Your task to perform on an android device: Open settings on Google Maps Image 0: 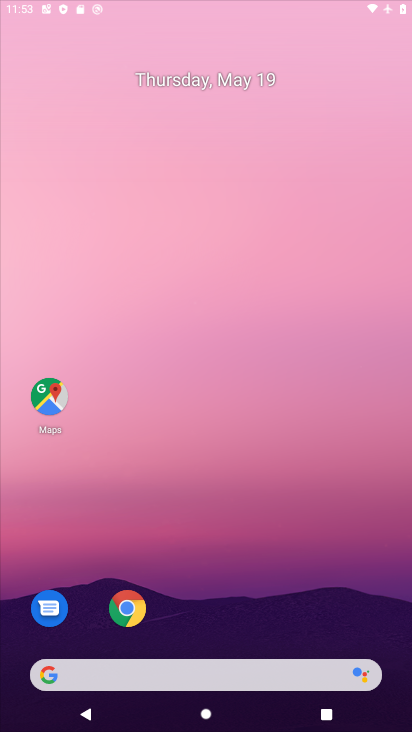
Step 0: click (380, 157)
Your task to perform on an android device: Open settings on Google Maps Image 1: 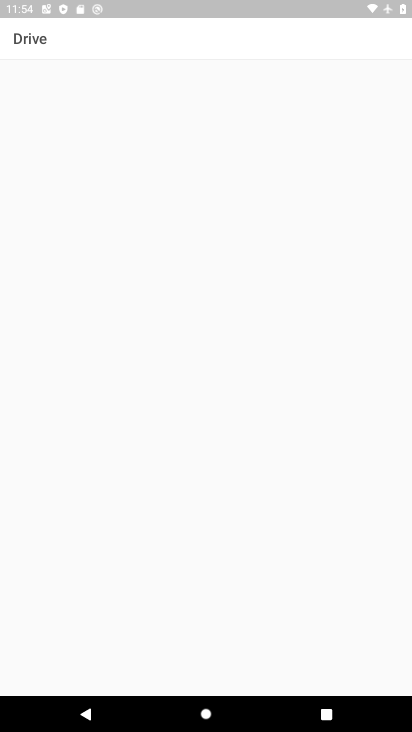
Step 1: drag from (319, 599) to (329, 168)
Your task to perform on an android device: Open settings on Google Maps Image 2: 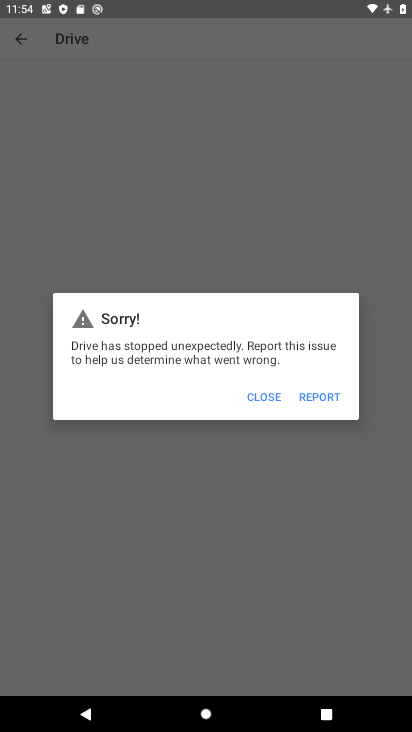
Step 2: press home button
Your task to perform on an android device: Open settings on Google Maps Image 3: 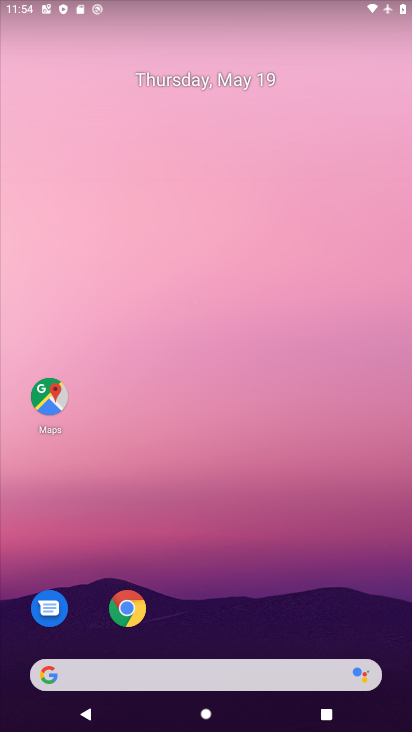
Step 3: drag from (343, 469) to (351, 202)
Your task to perform on an android device: Open settings on Google Maps Image 4: 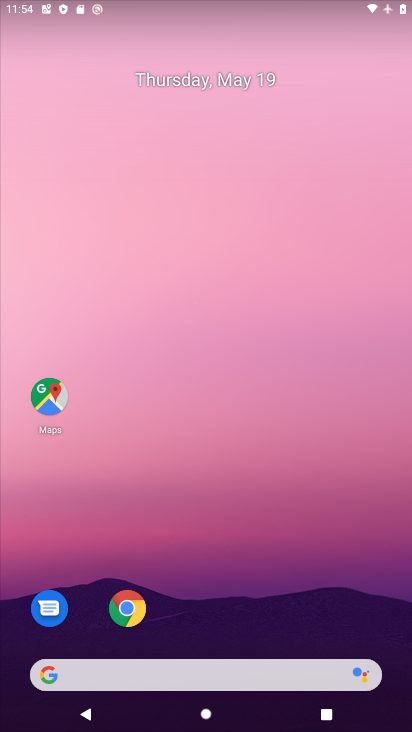
Step 4: drag from (337, 623) to (365, 207)
Your task to perform on an android device: Open settings on Google Maps Image 5: 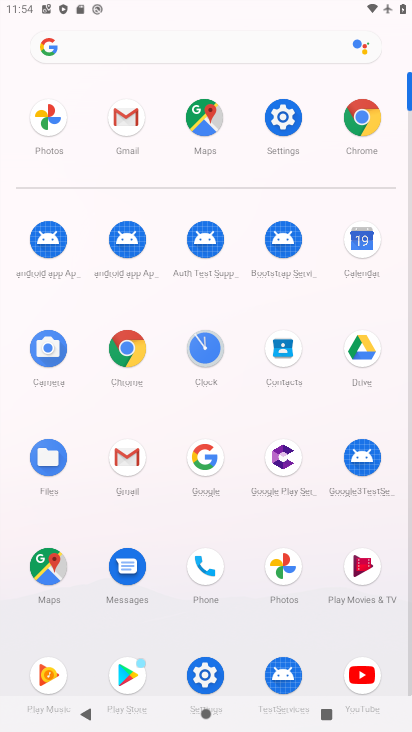
Step 5: click (30, 578)
Your task to perform on an android device: Open settings on Google Maps Image 6: 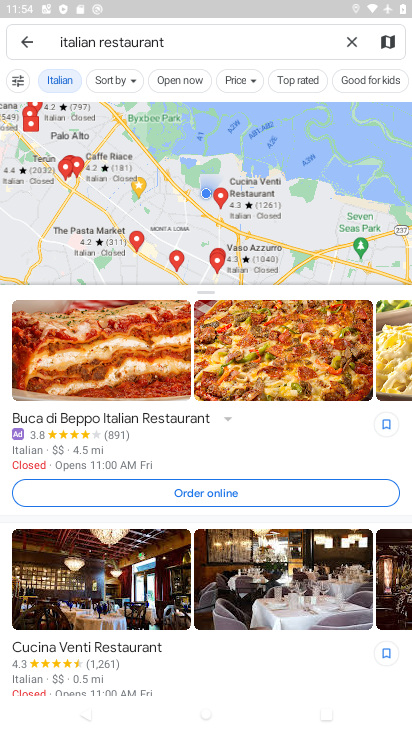
Step 6: click (29, 42)
Your task to perform on an android device: Open settings on Google Maps Image 7: 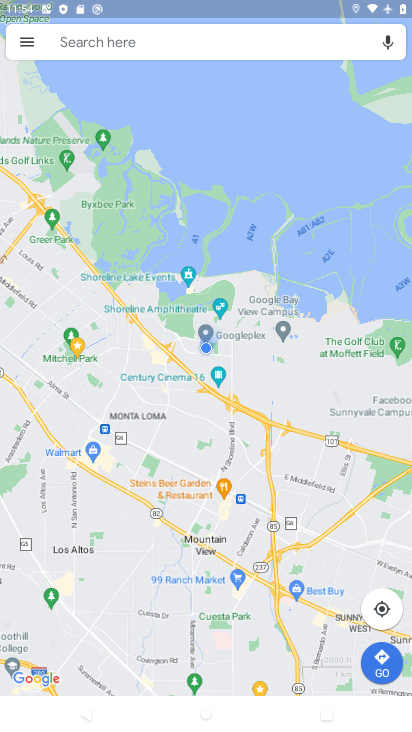
Step 7: click (30, 38)
Your task to perform on an android device: Open settings on Google Maps Image 8: 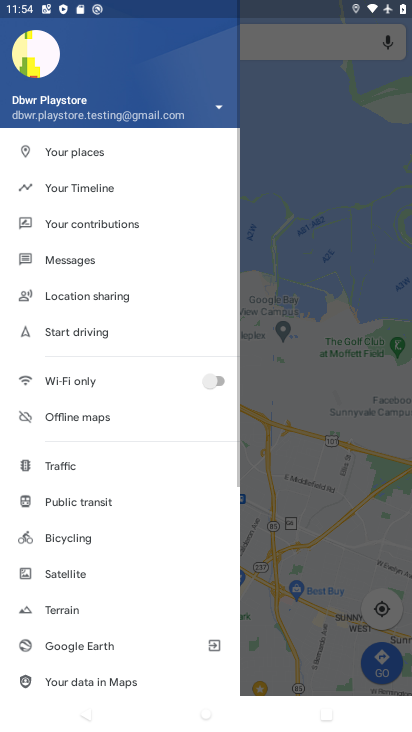
Step 8: drag from (175, 405) to (166, 337)
Your task to perform on an android device: Open settings on Google Maps Image 9: 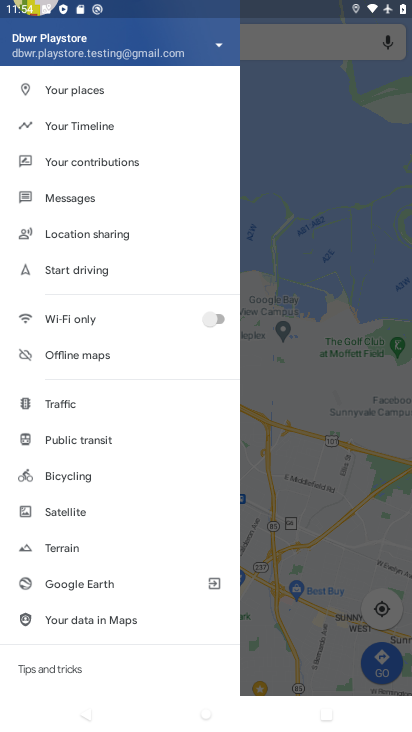
Step 9: drag from (148, 409) to (168, 297)
Your task to perform on an android device: Open settings on Google Maps Image 10: 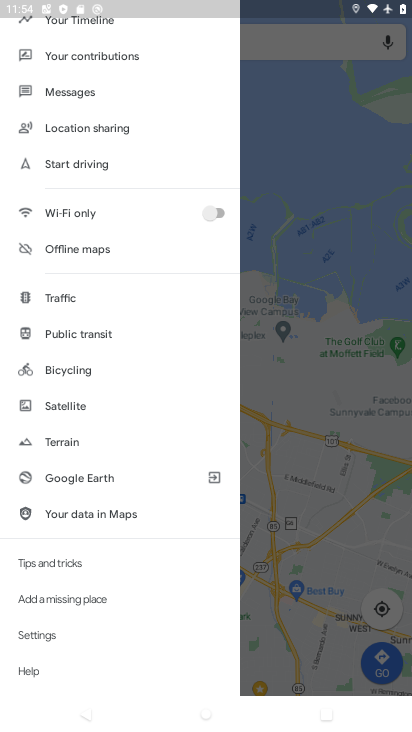
Step 10: drag from (150, 429) to (148, 312)
Your task to perform on an android device: Open settings on Google Maps Image 11: 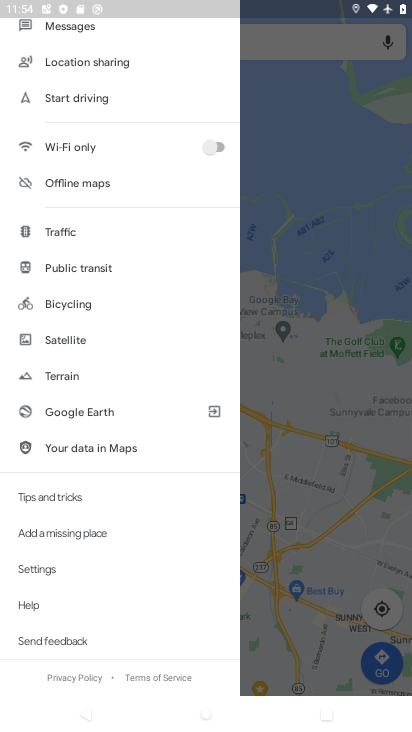
Step 11: drag from (154, 448) to (170, 350)
Your task to perform on an android device: Open settings on Google Maps Image 12: 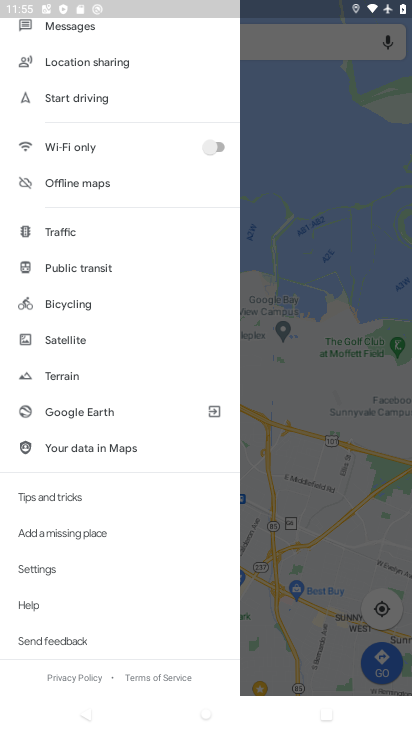
Step 12: click (64, 585)
Your task to perform on an android device: Open settings on Google Maps Image 13: 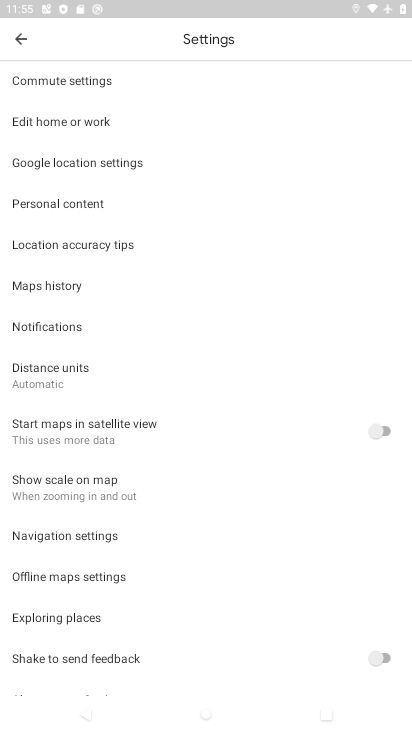
Step 13: task complete